Your task to perform on an android device: Go to location settings Image 0: 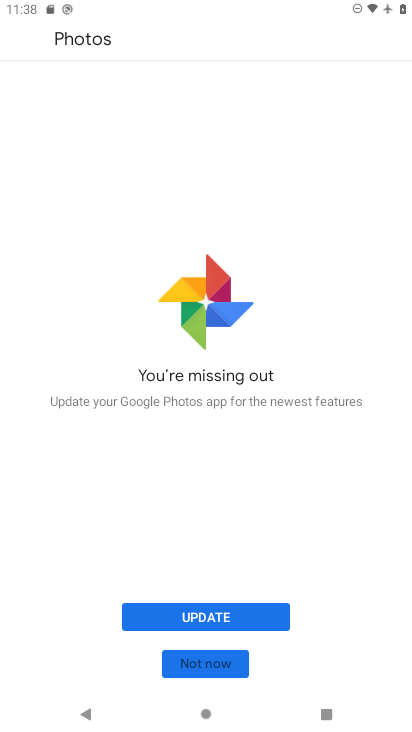
Step 0: press home button
Your task to perform on an android device: Go to location settings Image 1: 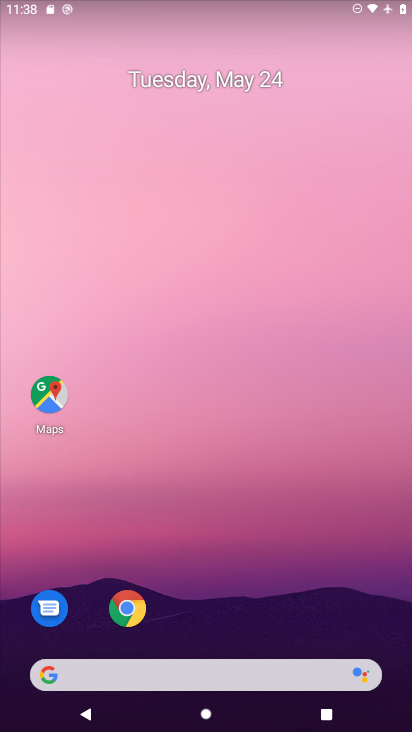
Step 1: drag from (367, 621) to (307, 51)
Your task to perform on an android device: Go to location settings Image 2: 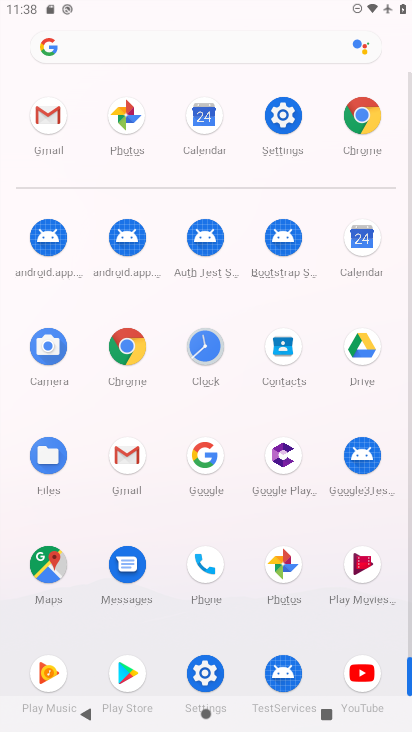
Step 2: click (205, 675)
Your task to perform on an android device: Go to location settings Image 3: 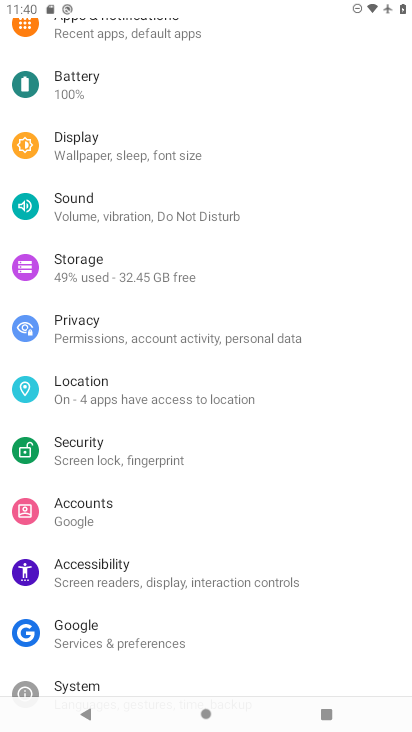
Step 3: click (133, 390)
Your task to perform on an android device: Go to location settings Image 4: 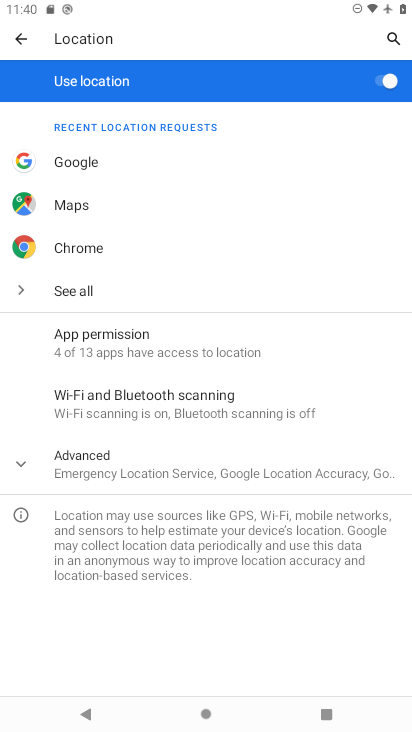
Step 4: task complete